Your task to perform on an android device: Write an email to 'tau.franklinbren.1654798856749@gmail.com', CC: 'tau.pachycephabr.1654798856749@gmail.com	' with subject: 'For your eyes only' and body: 'So many words yet so little time.' Image 0: 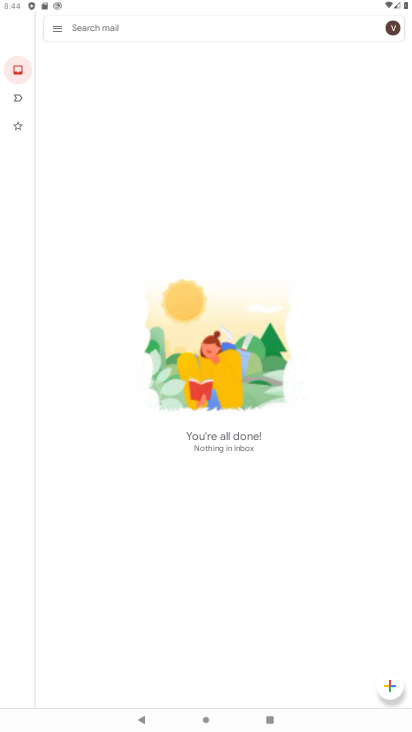
Step 0: click (396, 681)
Your task to perform on an android device: Write an email to 'tau.franklinbren.1654798856749@gmail.com', CC: 'tau.pachycephabr.1654798856749@gmail.com	' with subject: 'For your eyes only' and body: 'So many words yet so little time.' Image 1: 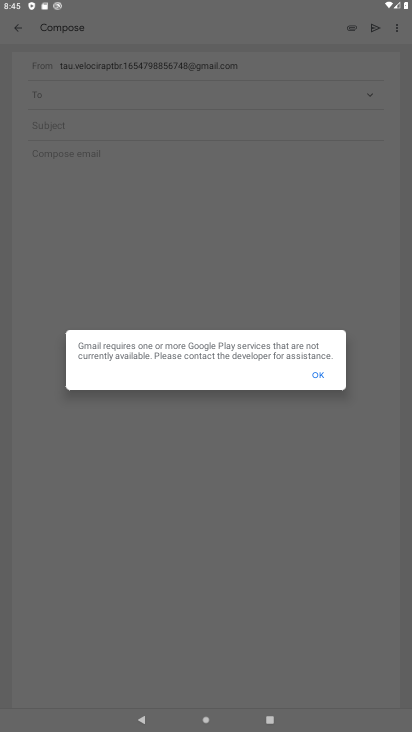
Step 1: click (310, 372)
Your task to perform on an android device: Write an email to 'tau.franklinbren.1654798856749@gmail.com', CC: 'tau.pachycephabr.1654798856749@gmail.com	' with subject: 'For your eyes only' and body: 'So many words yet so little time.' Image 2: 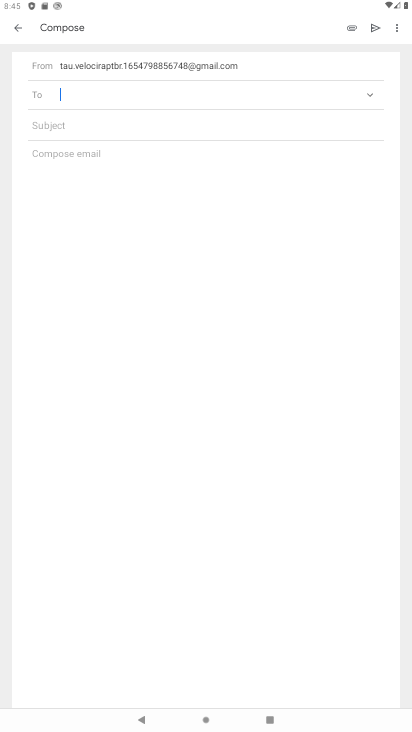
Step 2: type "tau.franklinbren.1654798856749@gmail.com"
Your task to perform on an android device: Write an email to 'tau.franklinbren.1654798856749@gmail.com', CC: 'tau.pachycephabr.1654798856749@gmail.com	' with subject: 'For your eyes only' and body: 'So many words yet so little time.' Image 3: 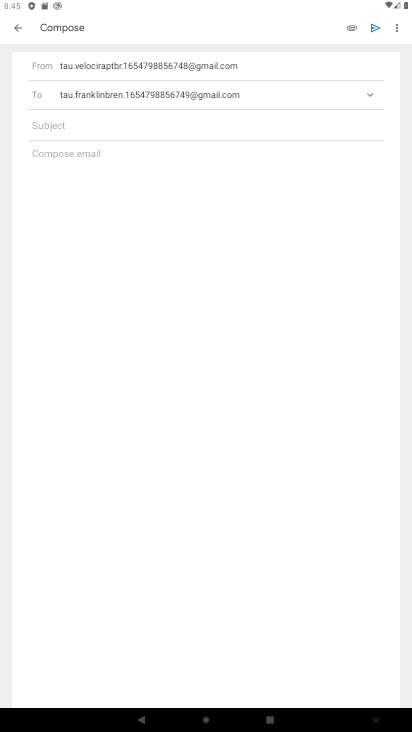
Step 3: click (372, 97)
Your task to perform on an android device: Write an email to 'tau.franklinbren.1654798856749@gmail.com', CC: 'tau.pachycephabr.1654798856749@gmail.com	' with subject: 'For your eyes only' and body: 'So many words yet so little time.' Image 4: 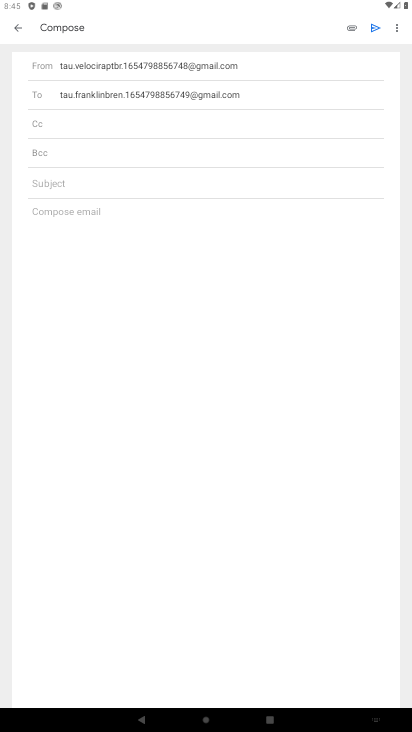
Step 4: click (364, 117)
Your task to perform on an android device: Write an email to 'tau.franklinbren.1654798856749@gmail.com', CC: 'tau.pachycephabr.1654798856749@gmail.com	' with subject: 'For your eyes only' and body: 'So many words yet so little time.' Image 5: 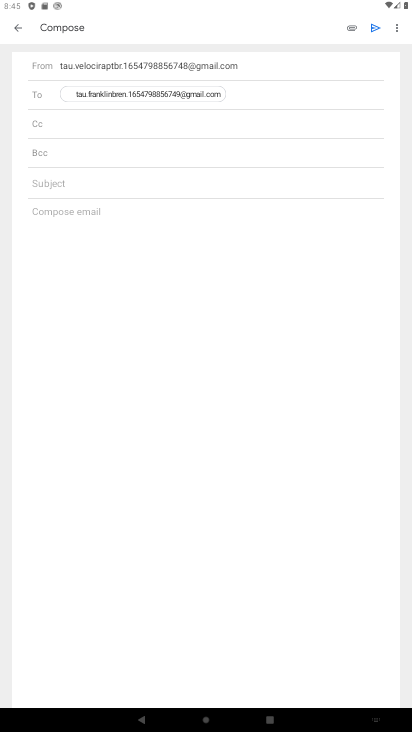
Step 5: type "tau.pachycephabr.1654798856749@gmail.com"
Your task to perform on an android device: Write an email to 'tau.franklinbren.1654798856749@gmail.com', CC: 'tau.pachycephabr.1654798856749@gmail.com	' with subject: 'For your eyes only' and body: 'So many words yet so little time.' Image 6: 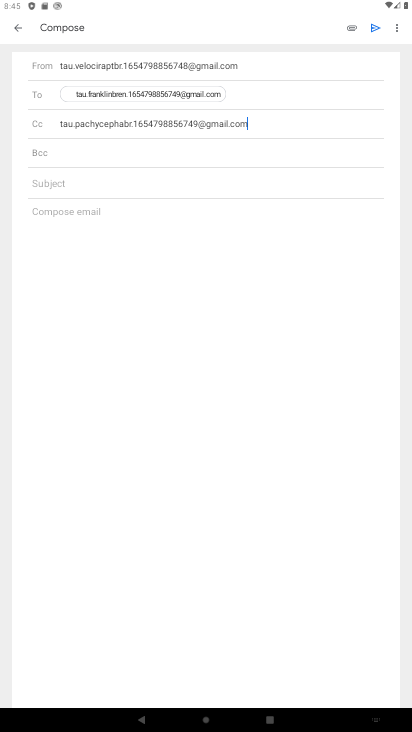
Step 6: click (217, 178)
Your task to perform on an android device: Write an email to 'tau.franklinbren.1654798856749@gmail.com', CC: 'tau.pachycephabr.1654798856749@gmail.com	' with subject: 'For your eyes only' and body: 'So many words yet so little time.' Image 7: 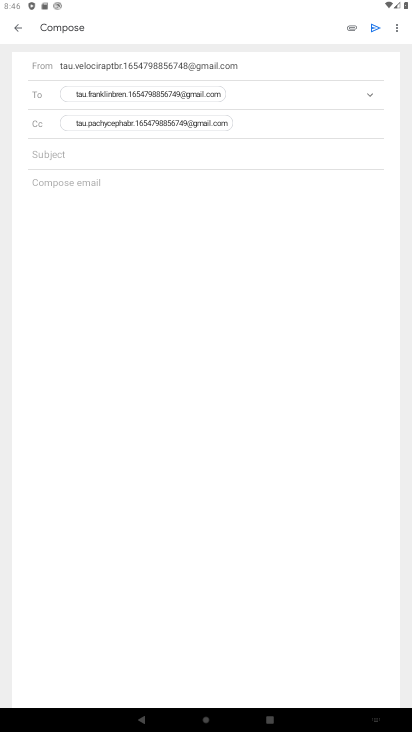
Step 7: type "For your eyes only"
Your task to perform on an android device: Write an email to 'tau.franklinbren.1654798856749@gmail.com', CC: 'tau.pachycephabr.1654798856749@gmail.com	' with subject: 'For your eyes only' and body: 'So many words yet so little time.' Image 8: 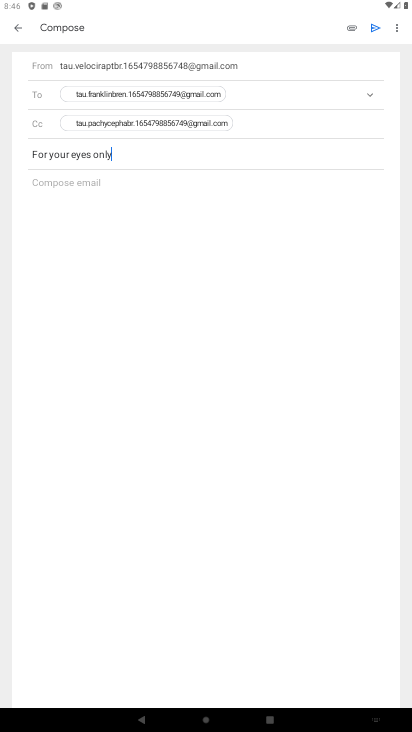
Step 8: click (208, 222)
Your task to perform on an android device: Write an email to 'tau.franklinbren.1654798856749@gmail.com', CC: 'tau.pachycephabr.1654798856749@gmail.com	' with subject: 'For your eyes only' and body: 'So many words yet so little time.' Image 9: 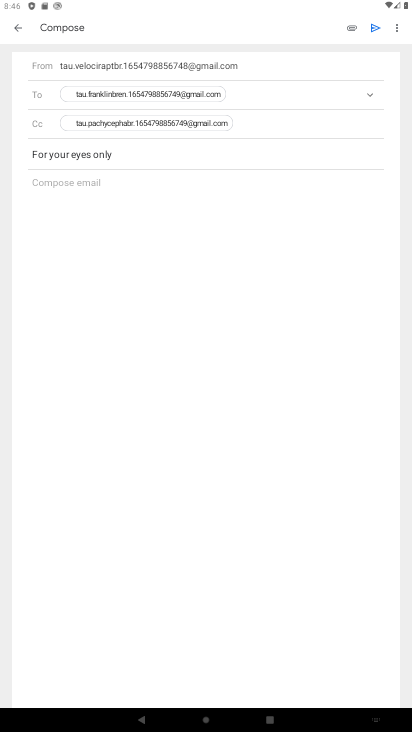
Step 9: type "So many words yet so little time."
Your task to perform on an android device: Write an email to 'tau.franklinbren.1654798856749@gmail.com', CC: 'tau.pachycephabr.1654798856749@gmail.com	' with subject: 'For your eyes only' and body: 'So many words yet so little time.' Image 10: 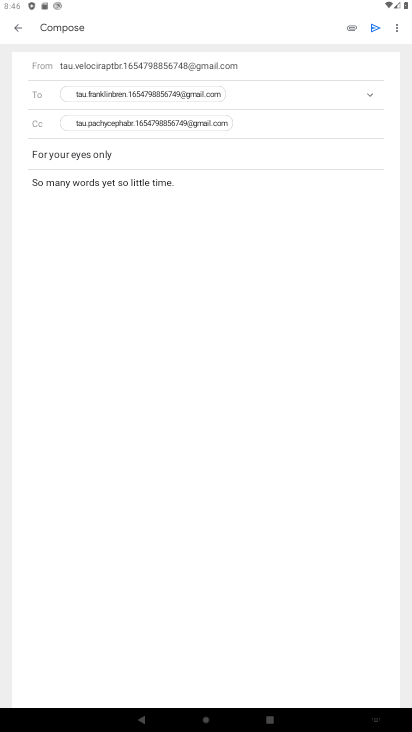
Step 10: task complete